Your task to perform on an android device: turn on sleep mode Image 0: 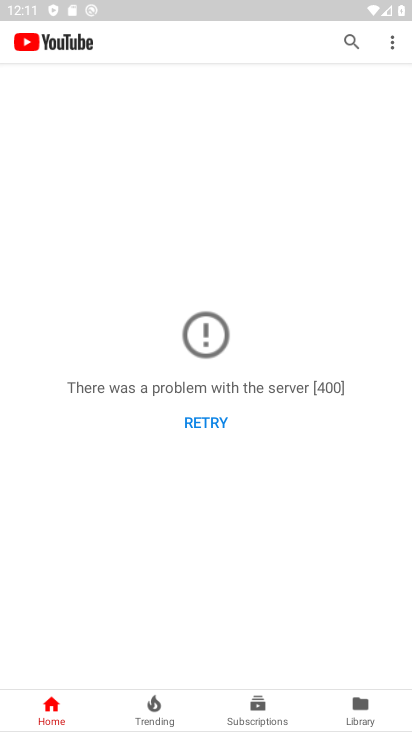
Step 0: press home button
Your task to perform on an android device: turn on sleep mode Image 1: 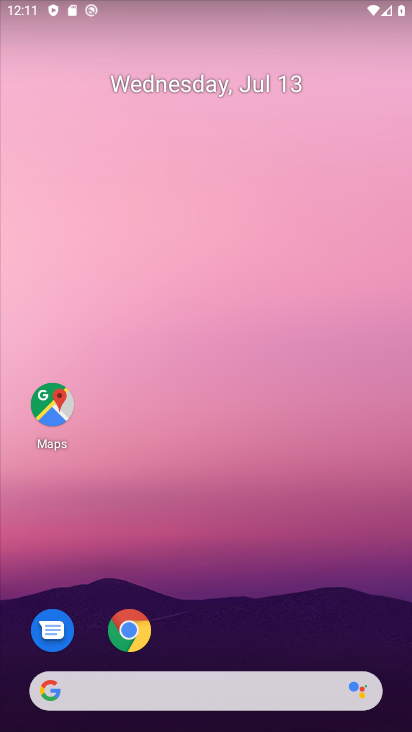
Step 1: drag from (206, 645) to (237, 34)
Your task to perform on an android device: turn on sleep mode Image 2: 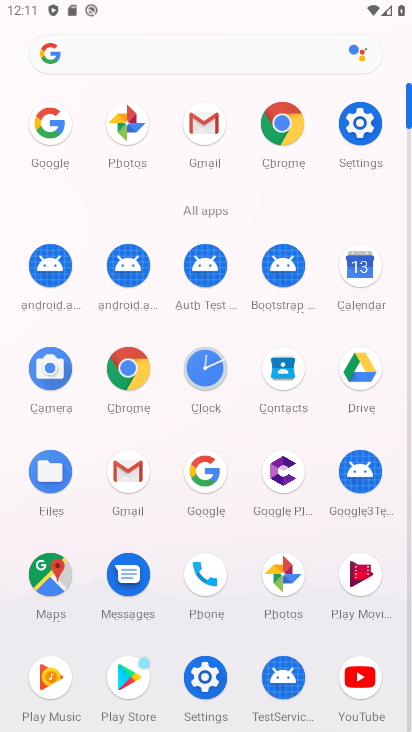
Step 2: click (362, 118)
Your task to perform on an android device: turn on sleep mode Image 3: 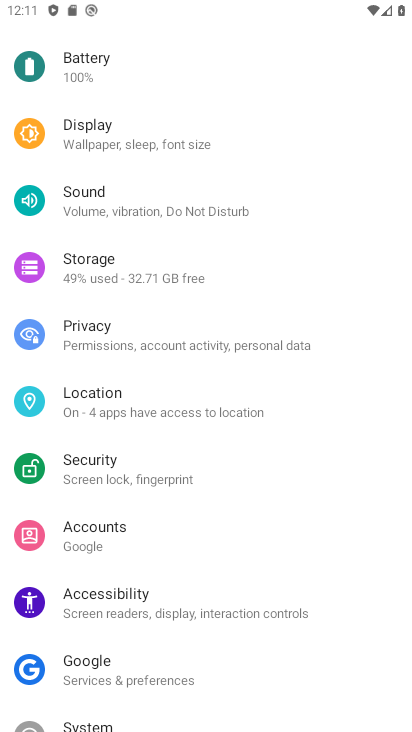
Step 3: click (126, 129)
Your task to perform on an android device: turn on sleep mode Image 4: 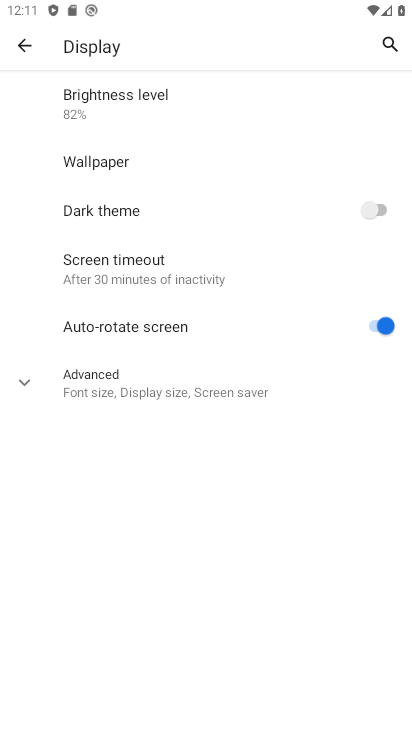
Step 4: click (21, 379)
Your task to perform on an android device: turn on sleep mode Image 5: 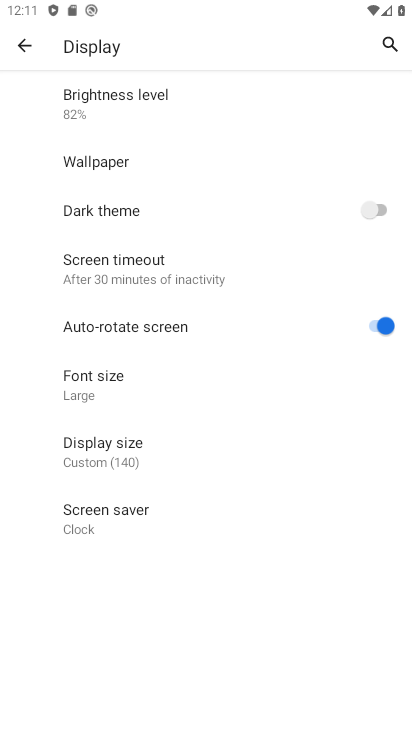
Step 5: task complete